Your task to perform on an android device: Clear the shopping cart on walmart.com. Add "alienware area 51" to the cart on walmart.com, then select checkout. Image 0: 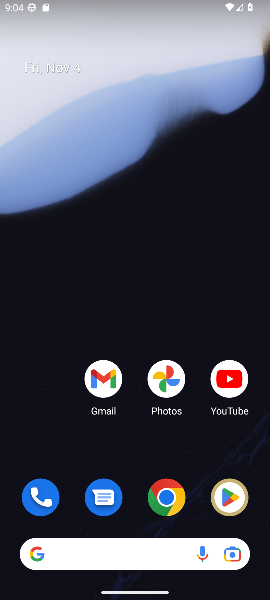
Step 0: click (172, 499)
Your task to perform on an android device: Clear the shopping cart on walmart.com. Add "alienware area 51" to the cart on walmart.com, then select checkout. Image 1: 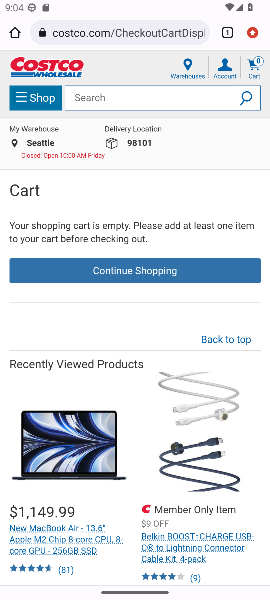
Step 1: click (103, 30)
Your task to perform on an android device: Clear the shopping cart on walmart.com. Add "alienware area 51" to the cart on walmart.com, then select checkout. Image 2: 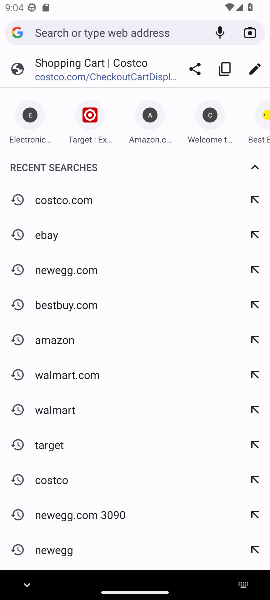
Step 2: type "walmart.com"
Your task to perform on an android device: Clear the shopping cart on walmart.com. Add "alienware area 51" to the cart on walmart.com, then select checkout. Image 3: 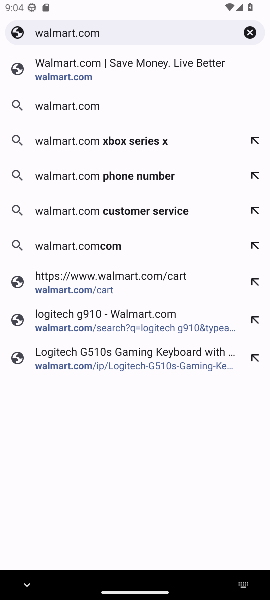
Step 3: click (59, 77)
Your task to perform on an android device: Clear the shopping cart on walmart.com. Add "alienware area 51" to the cart on walmart.com, then select checkout. Image 4: 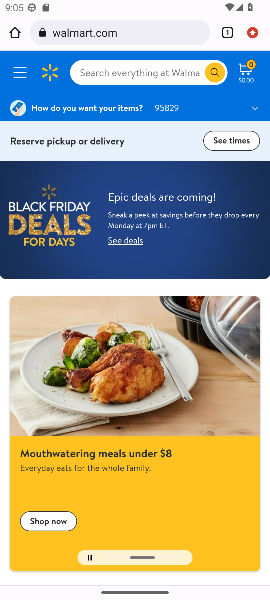
Step 4: click (246, 78)
Your task to perform on an android device: Clear the shopping cart on walmart.com. Add "alienware area 51" to the cart on walmart.com, then select checkout. Image 5: 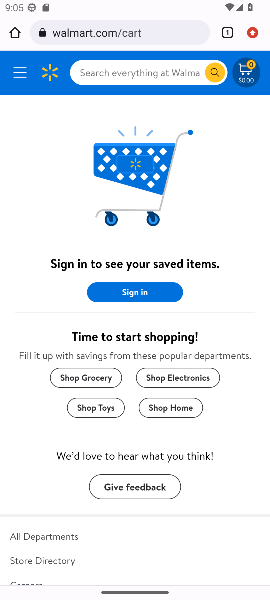
Step 5: click (155, 71)
Your task to perform on an android device: Clear the shopping cart on walmart.com. Add "alienware area 51" to the cart on walmart.com, then select checkout. Image 6: 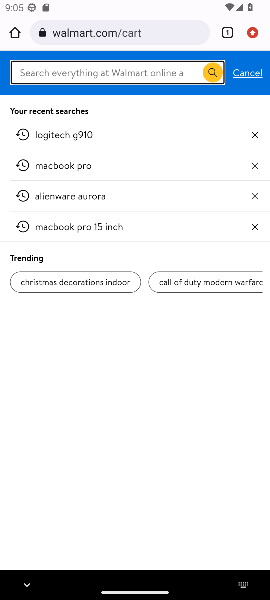
Step 6: type "alienware area 51"
Your task to perform on an android device: Clear the shopping cart on walmart.com. Add "alienware area 51" to the cart on walmart.com, then select checkout. Image 7: 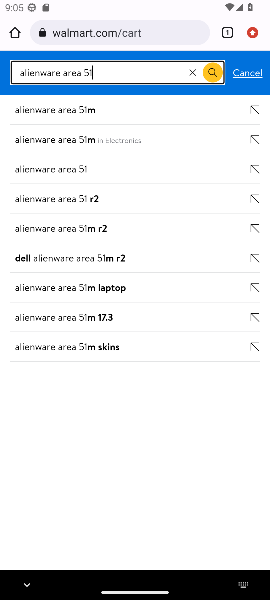
Step 7: click (68, 172)
Your task to perform on an android device: Clear the shopping cart on walmart.com. Add "alienware area 51" to the cart on walmart.com, then select checkout. Image 8: 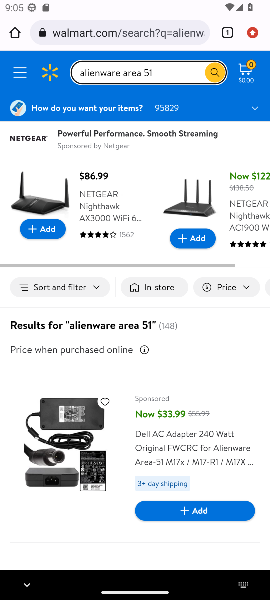
Step 8: drag from (154, 448) to (147, 166)
Your task to perform on an android device: Clear the shopping cart on walmart.com. Add "alienware area 51" to the cart on walmart.com, then select checkout. Image 9: 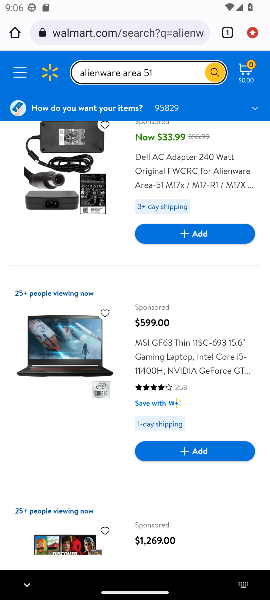
Step 9: drag from (166, 367) to (148, 161)
Your task to perform on an android device: Clear the shopping cart on walmart.com. Add "alienware area 51" to the cart on walmart.com, then select checkout. Image 10: 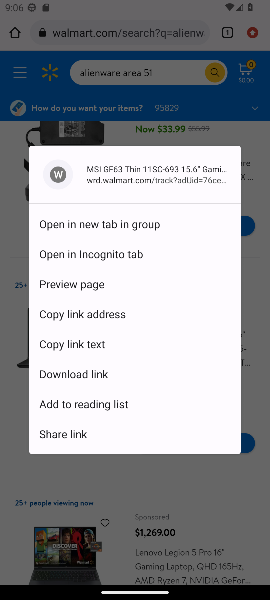
Step 10: click (264, 427)
Your task to perform on an android device: Clear the shopping cart on walmart.com. Add "alienware area 51" to the cart on walmart.com, then select checkout. Image 11: 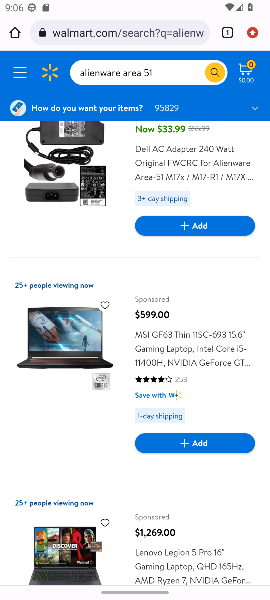
Step 11: drag from (156, 461) to (150, 200)
Your task to perform on an android device: Clear the shopping cart on walmart.com. Add "alienware area 51" to the cart on walmart.com, then select checkout. Image 12: 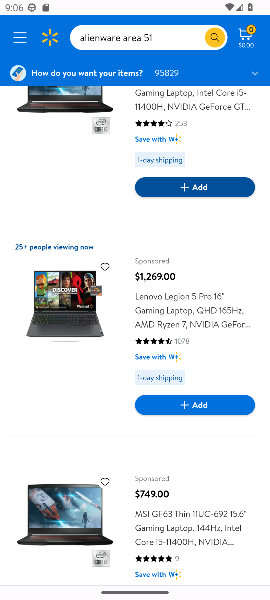
Step 12: drag from (134, 367) to (129, 200)
Your task to perform on an android device: Clear the shopping cart on walmart.com. Add "alienware area 51" to the cart on walmart.com, then select checkout. Image 13: 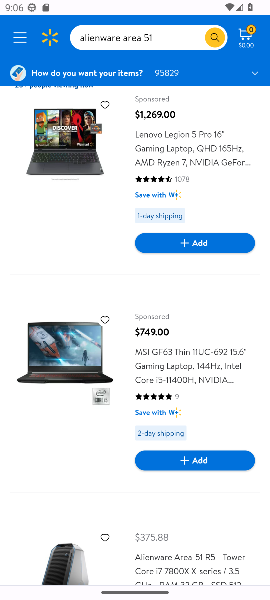
Step 13: drag from (143, 404) to (120, 212)
Your task to perform on an android device: Clear the shopping cart on walmart.com. Add "alienware area 51" to the cart on walmart.com, then select checkout. Image 14: 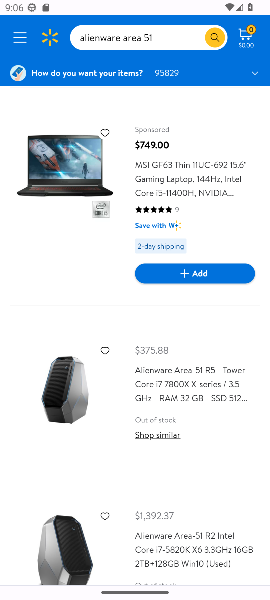
Step 14: click (127, 409)
Your task to perform on an android device: Clear the shopping cart on walmart.com. Add "alienware area 51" to the cart on walmart.com, then select checkout. Image 15: 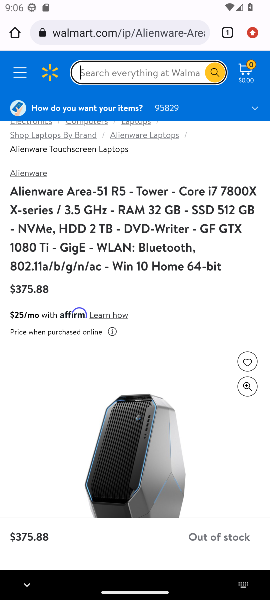
Step 15: drag from (127, 409) to (148, 176)
Your task to perform on an android device: Clear the shopping cart on walmart.com. Add "alienware area 51" to the cart on walmart.com, then select checkout. Image 16: 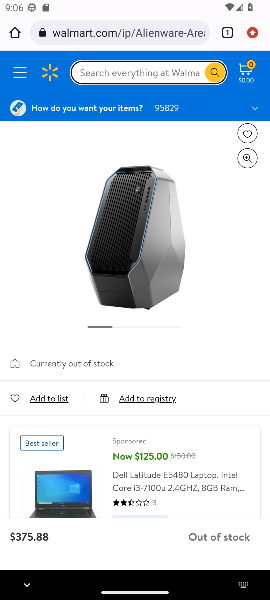
Step 16: drag from (123, 439) to (148, 259)
Your task to perform on an android device: Clear the shopping cart on walmart.com. Add "alienware area 51" to the cart on walmart.com, then select checkout. Image 17: 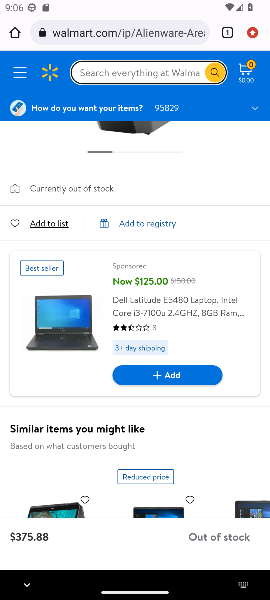
Step 17: drag from (145, 428) to (231, 553)
Your task to perform on an android device: Clear the shopping cart on walmart.com. Add "alienware area 51" to the cart on walmart.com, then select checkout. Image 18: 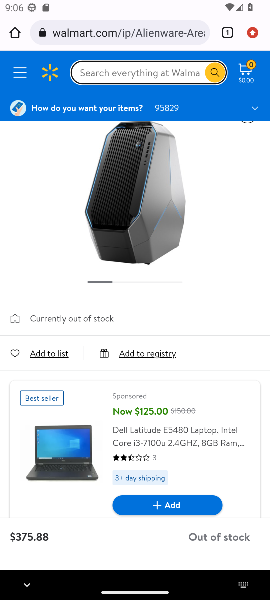
Step 18: press back button
Your task to perform on an android device: Clear the shopping cart on walmart.com. Add "alienware area 51" to the cart on walmart.com, then select checkout. Image 19: 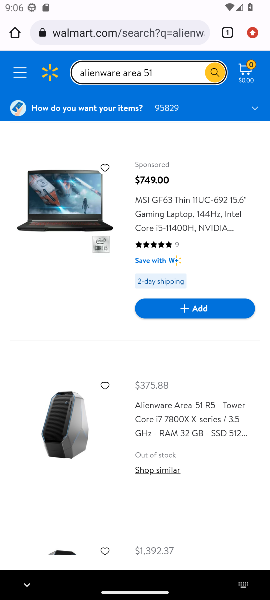
Step 19: drag from (121, 406) to (128, 179)
Your task to perform on an android device: Clear the shopping cart on walmart.com. Add "alienware area 51" to the cart on walmart.com, then select checkout. Image 20: 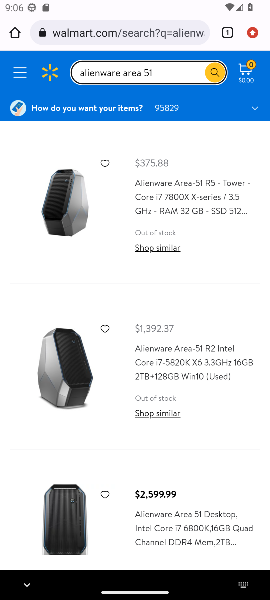
Step 20: click (90, 375)
Your task to perform on an android device: Clear the shopping cart on walmart.com. Add "alienware area 51" to the cart on walmart.com, then select checkout. Image 21: 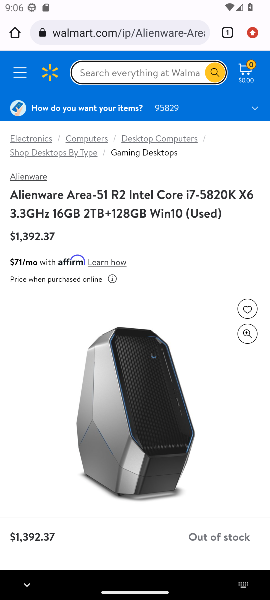
Step 21: press back button
Your task to perform on an android device: Clear the shopping cart on walmart.com. Add "alienware area 51" to the cart on walmart.com, then select checkout. Image 22: 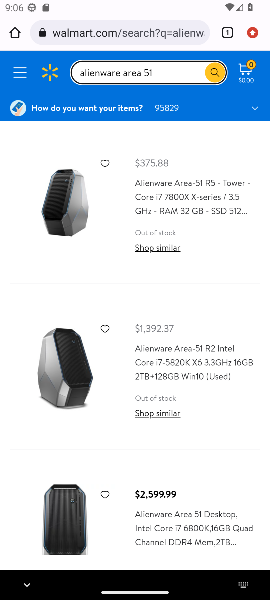
Step 22: drag from (131, 447) to (153, 234)
Your task to perform on an android device: Clear the shopping cart on walmart.com. Add "alienware area 51" to the cart on walmart.com, then select checkout. Image 23: 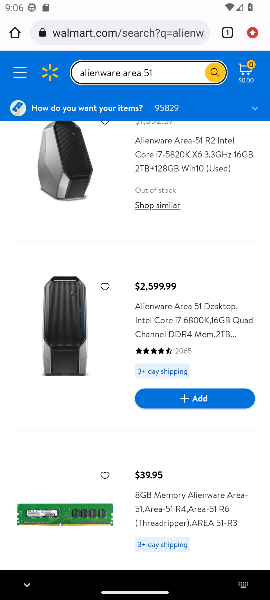
Step 23: click (126, 323)
Your task to perform on an android device: Clear the shopping cart on walmart.com. Add "alienware area 51" to the cart on walmart.com, then select checkout. Image 24: 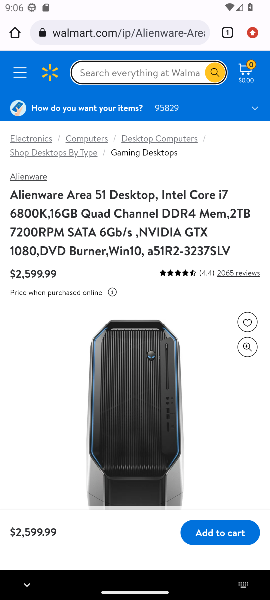
Step 24: click (212, 536)
Your task to perform on an android device: Clear the shopping cart on walmart.com. Add "alienware area 51" to the cart on walmart.com, then select checkout. Image 25: 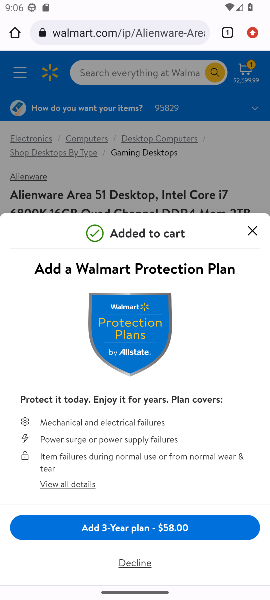
Step 25: click (249, 223)
Your task to perform on an android device: Clear the shopping cart on walmart.com. Add "alienware area 51" to the cart on walmart.com, then select checkout. Image 26: 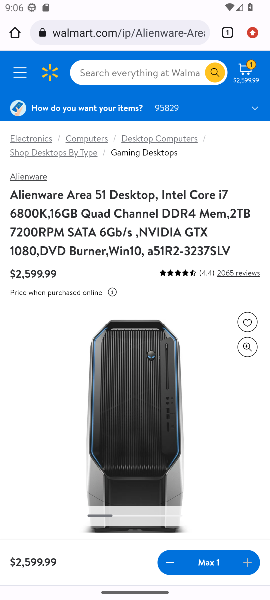
Step 26: click (249, 72)
Your task to perform on an android device: Clear the shopping cart on walmart.com. Add "alienware area 51" to the cart on walmart.com, then select checkout. Image 27: 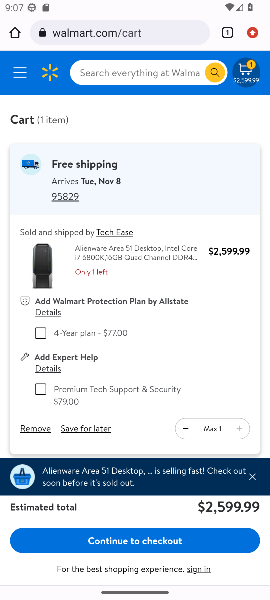
Step 27: click (135, 544)
Your task to perform on an android device: Clear the shopping cart on walmart.com. Add "alienware area 51" to the cart on walmart.com, then select checkout. Image 28: 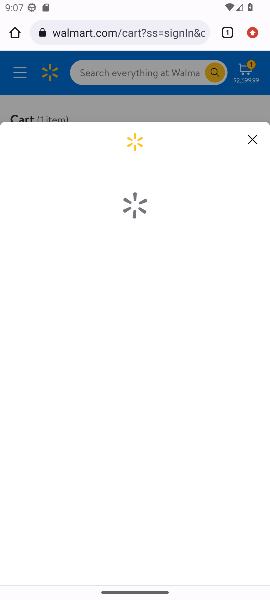
Step 28: task complete